Your task to perform on an android device: move a message to another label in the gmail app Image 0: 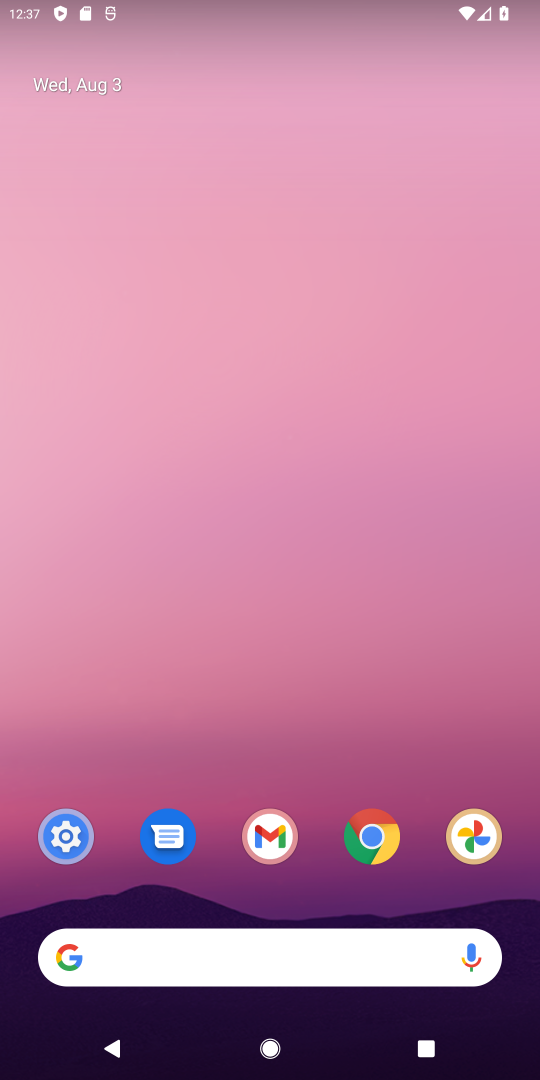
Step 0: drag from (218, 881) to (203, 363)
Your task to perform on an android device: move a message to another label in the gmail app Image 1: 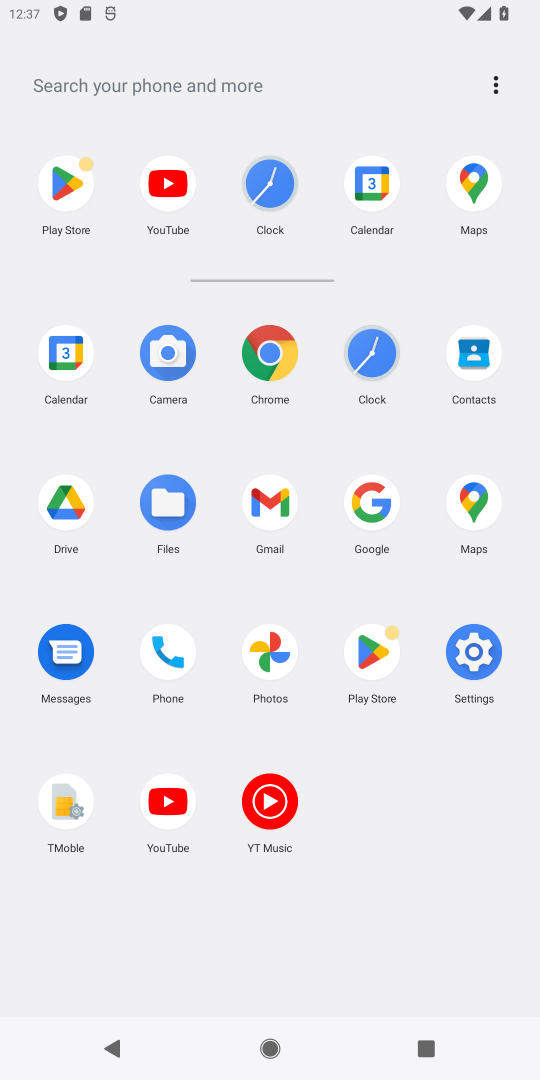
Step 1: click (257, 477)
Your task to perform on an android device: move a message to another label in the gmail app Image 2: 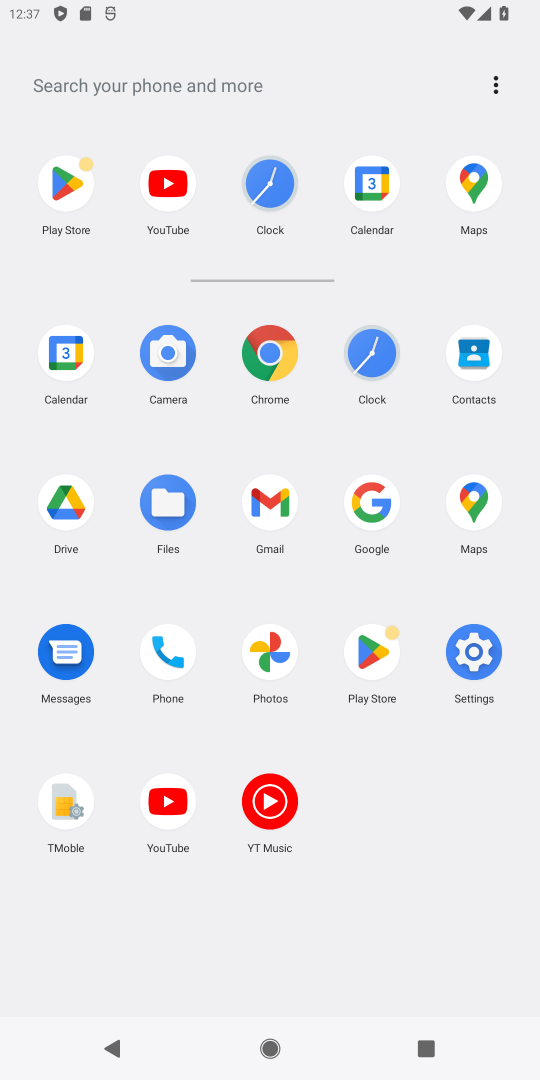
Step 2: click (257, 477)
Your task to perform on an android device: move a message to another label in the gmail app Image 3: 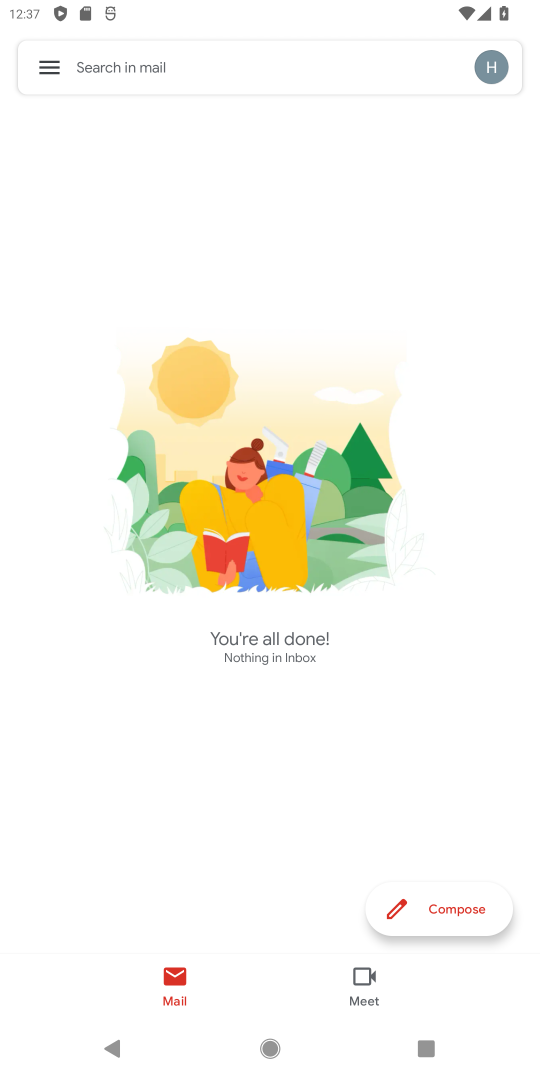
Step 3: drag from (253, 639) to (266, 385)
Your task to perform on an android device: move a message to another label in the gmail app Image 4: 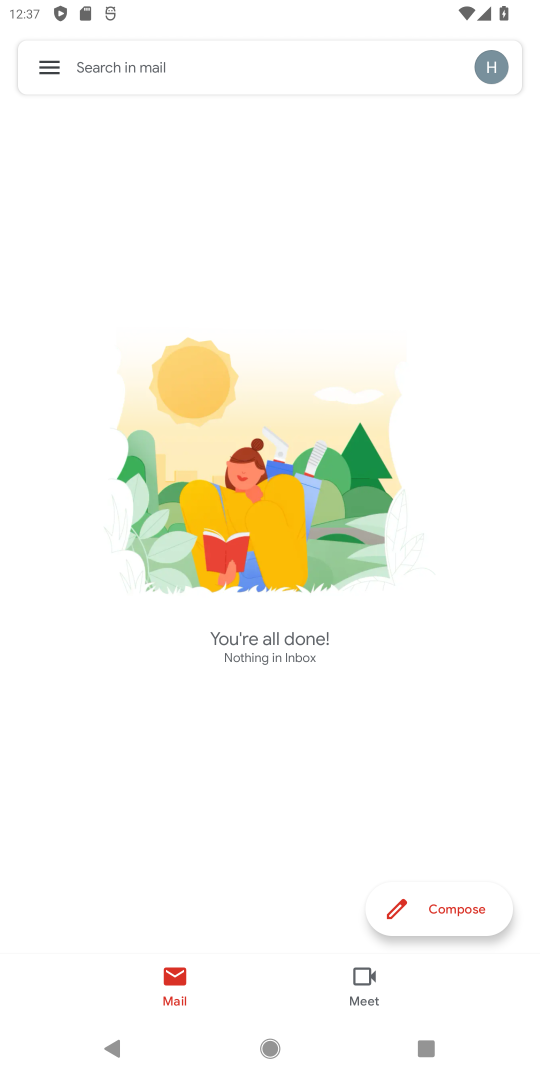
Step 4: drag from (262, 678) to (302, 414)
Your task to perform on an android device: move a message to another label in the gmail app Image 5: 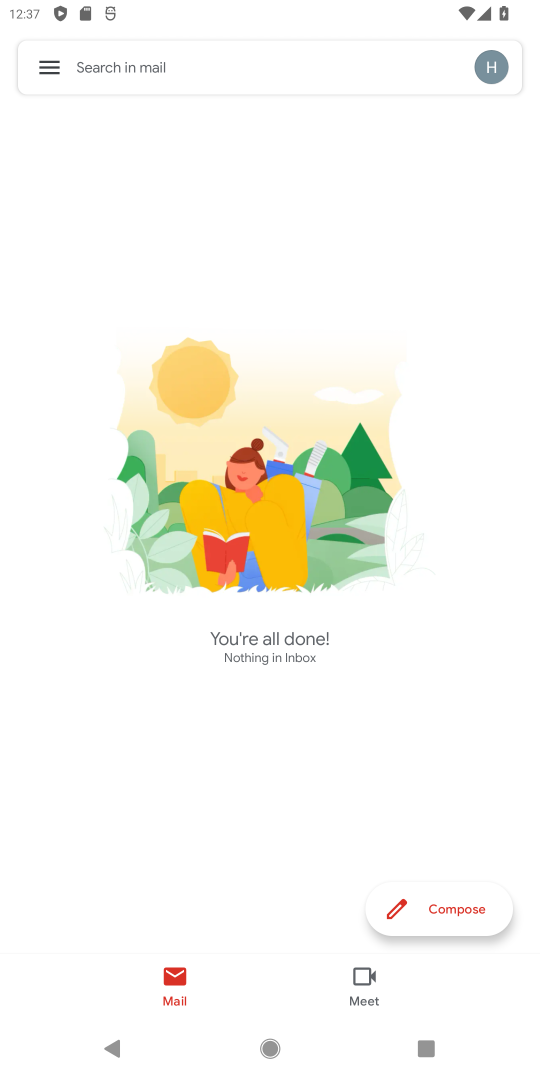
Step 5: drag from (257, 782) to (282, 385)
Your task to perform on an android device: move a message to another label in the gmail app Image 6: 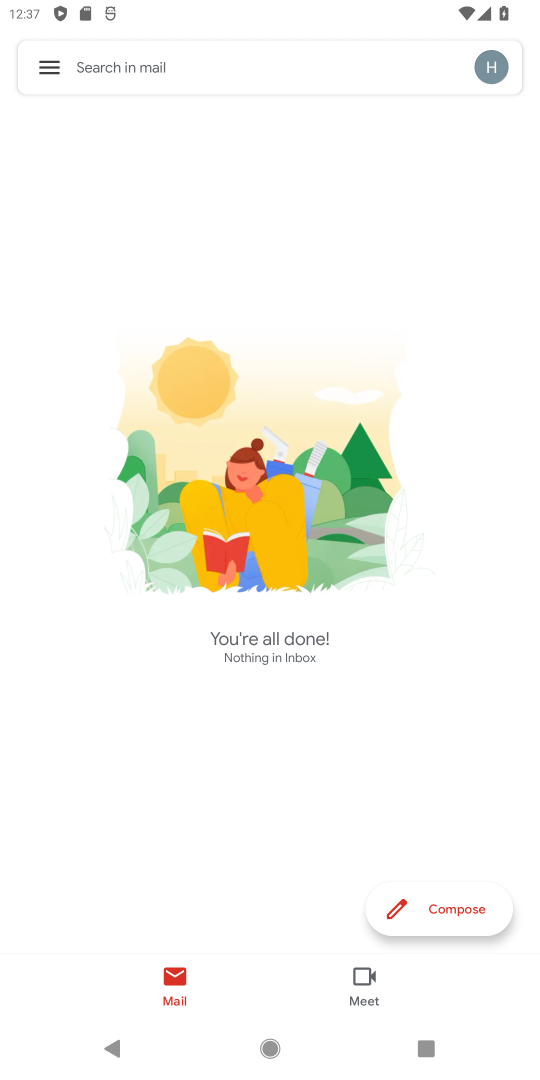
Step 6: click (446, 501)
Your task to perform on an android device: move a message to another label in the gmail app Image 7: 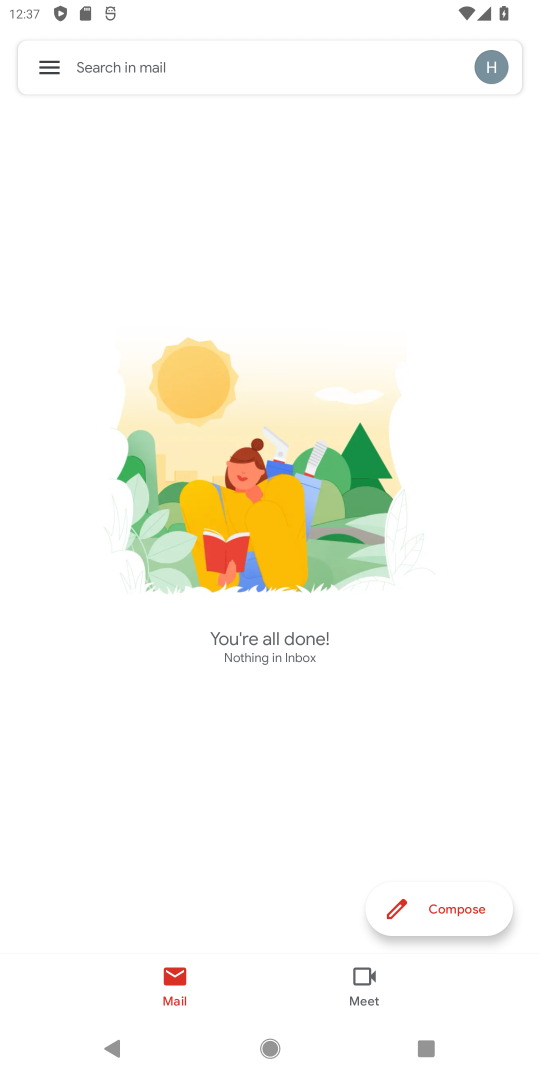
Step 7: click (286, 669)
Your task to perform on an android device: move a message to another label in the gmail app Image 8: 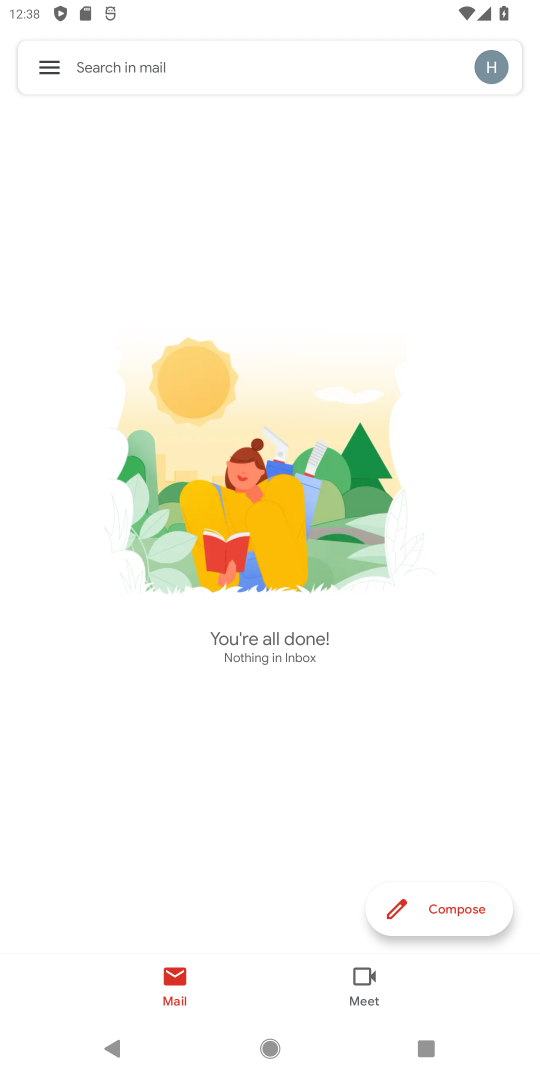
Step 8: click (372, 198)
Your task to perform on an android device: move a message to another label in the gmail app Image 9: 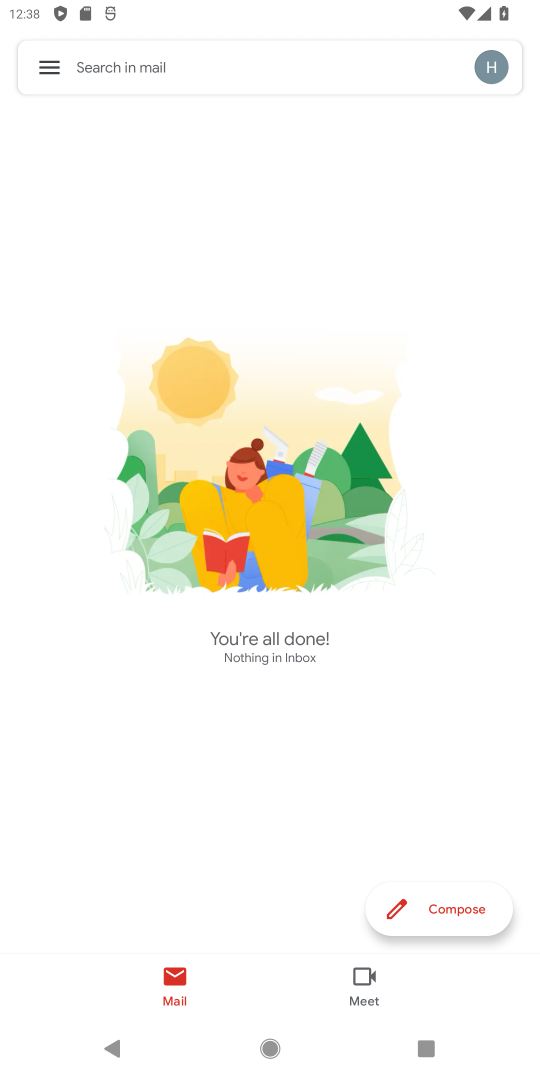
Step 9: click (52, 58)
Your task to perform on an android device: move a message to another label in the gmail app Image 10: 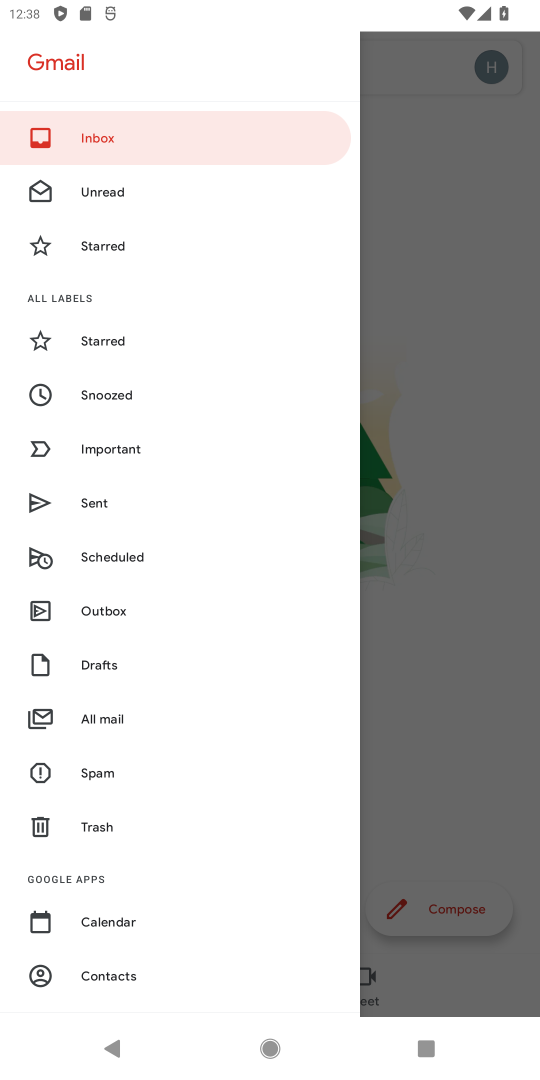
Step 10: click (126, 134)
Your task to perform on an android device: move a message to another label in the gmail app Image 11: 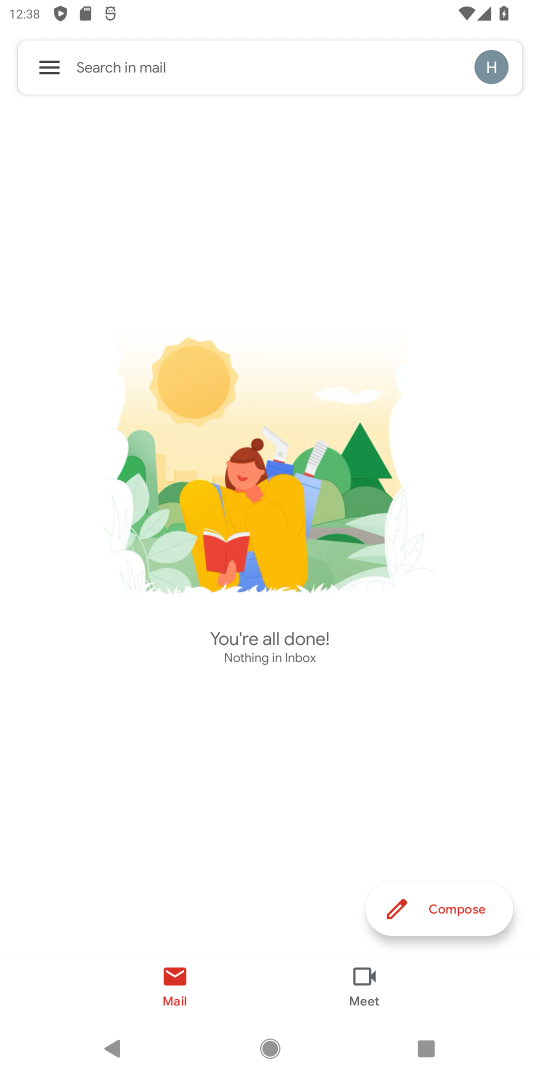
Step 11: click (72, 66)
Your task to perform on an android device: move a message to another label in the gmail app Image 12: 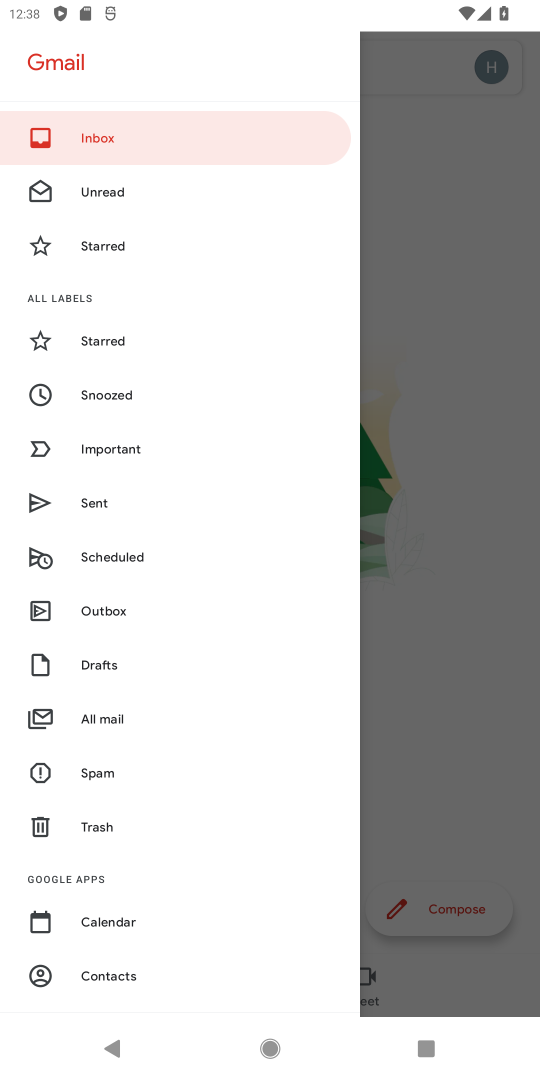
Step 12: click (107, 138)
Your task to perform on an android device: move a message to another label in the gmail app Image 13: 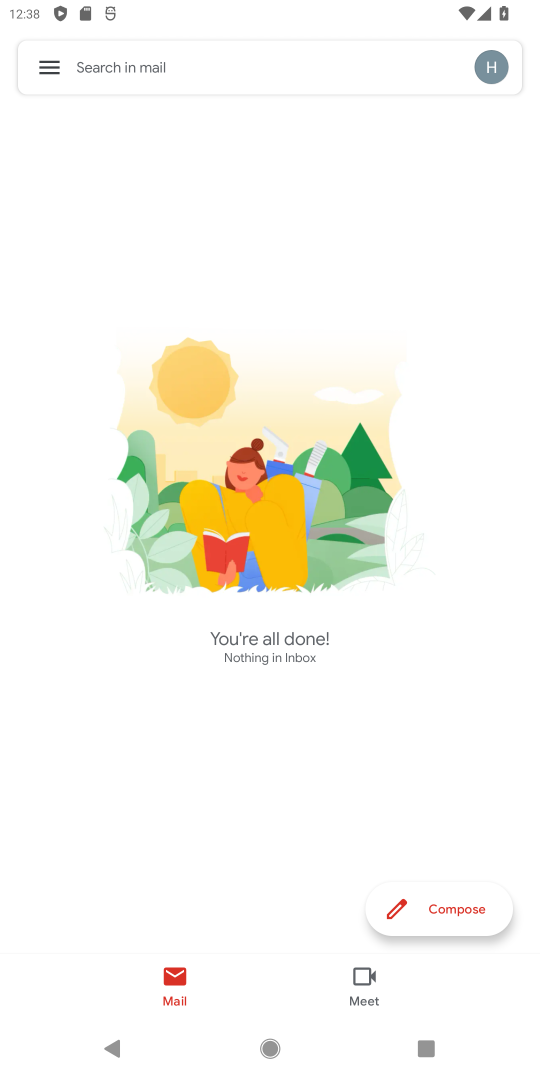
Step 13: drag from (286, 825) to (230, 442)
Your task to perform on an android device: move a message to another label in the gmail app Image 14: 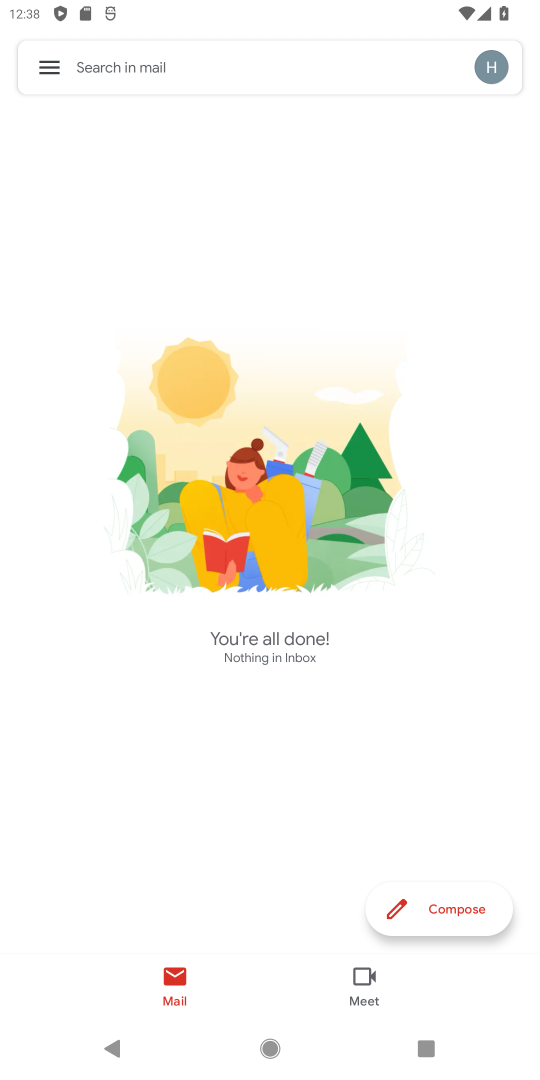
Step 14: drag from (366, 538) to (366, 328)
Your task to perform on an android device: move a message to another label in the gmail app Image 15: 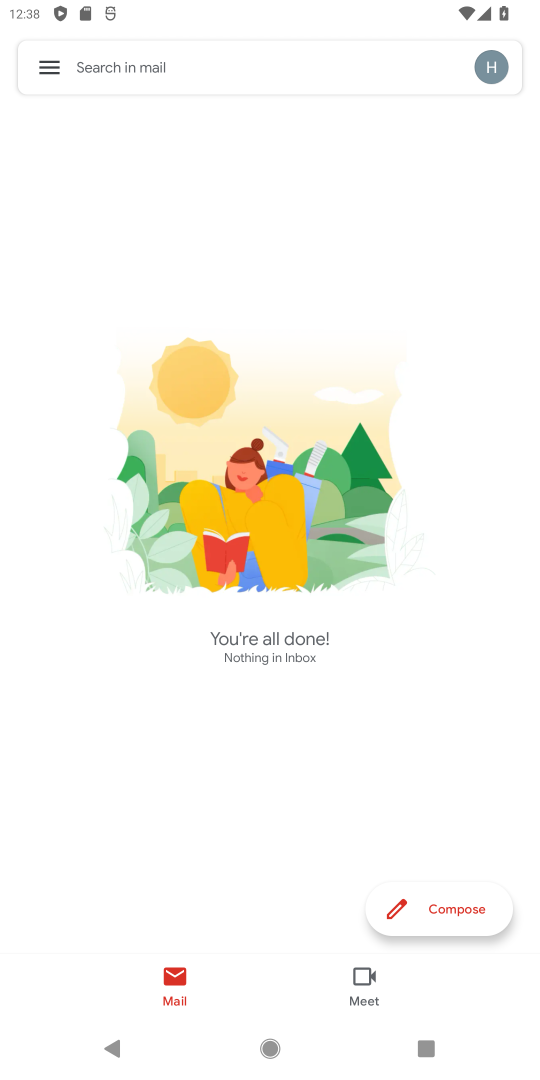
Step 15: click (43, 87)
Your task to perform on an android device: move a message to another label in the gmail app Image 16: 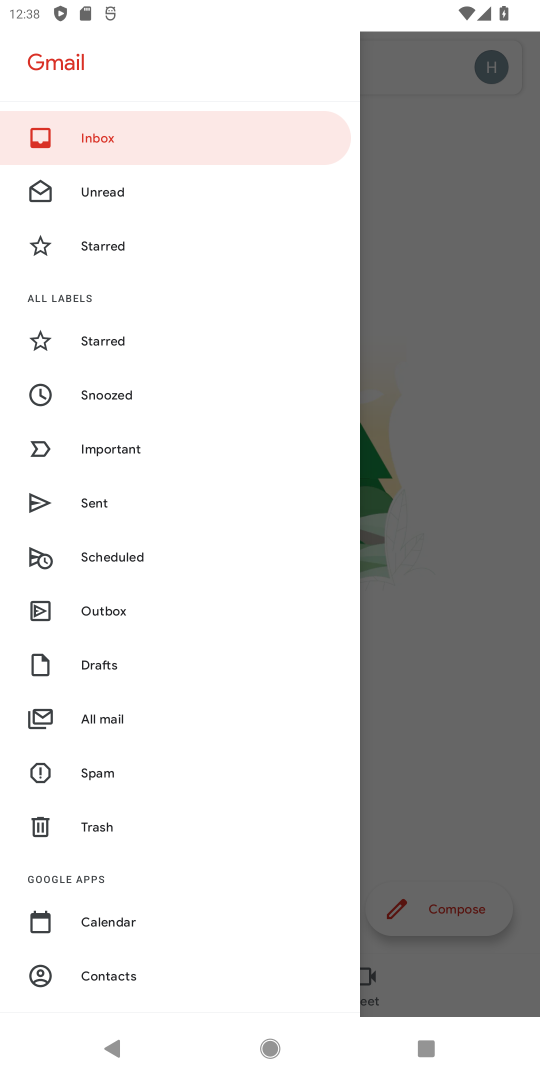
Step 16: drag from (142, 586) to (194, 305)
Your task to perform on an android device: move a message to another label in the gmail app Image 17: 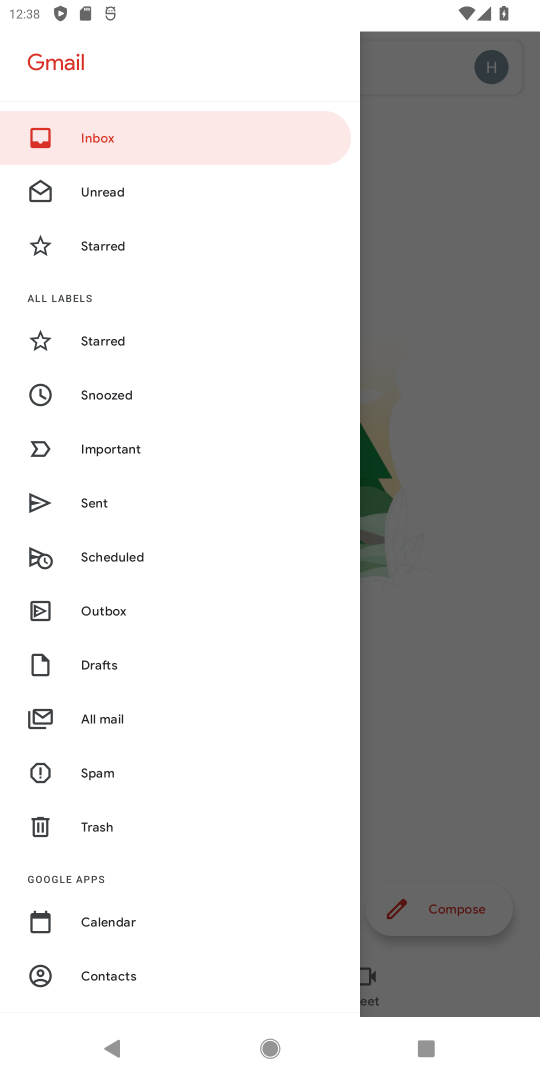
Step 17: drag from (181, 269) to (188, 952)
Your task to perform on an android device: move a message to another label in the gmail app Image 18: 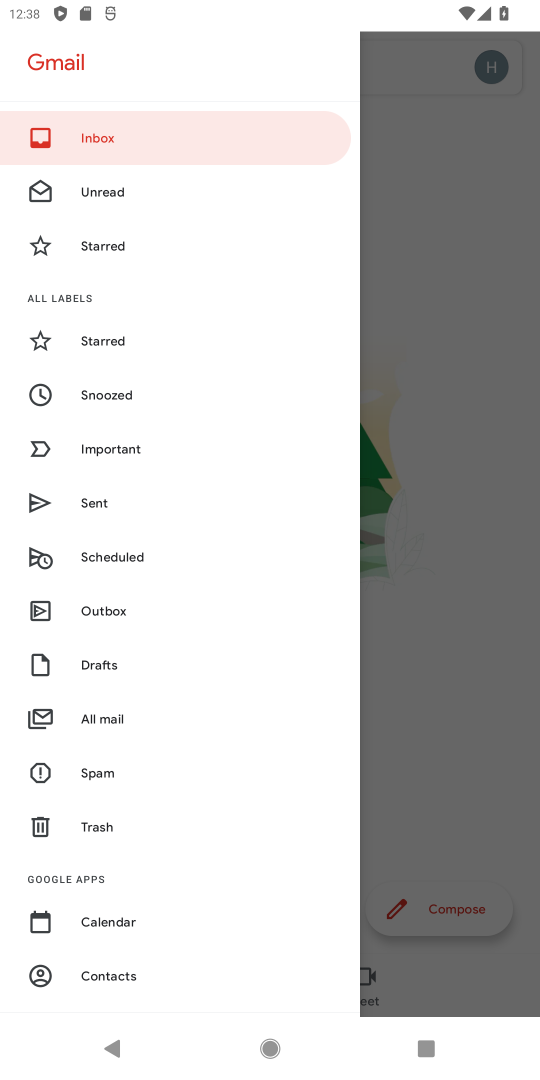
Step 18: click (392, 369)
Your task to perform on an android device: move a message to another label in the gmail app Image 19: 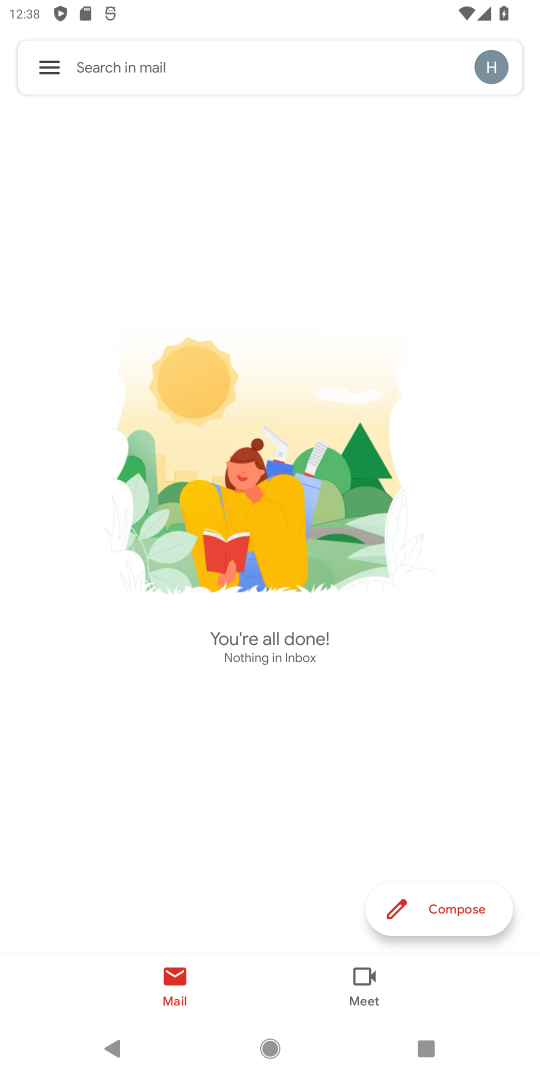
Step 19: task complete